Your task to perform on an android device: Check the news Image 0: 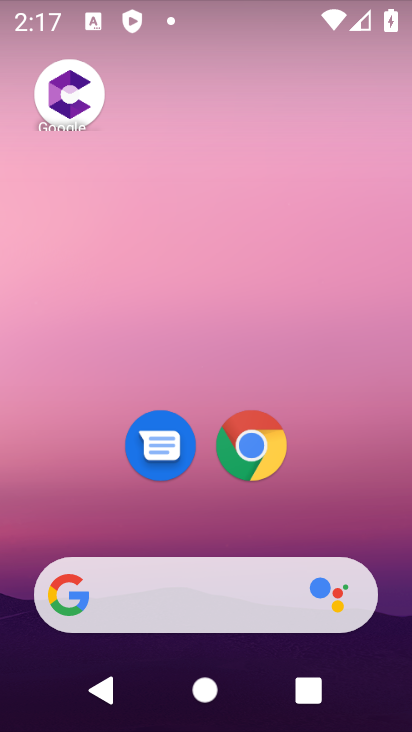
Step 0: click (223, 621)
Your task to perform on an android device: Check the news Image 1: 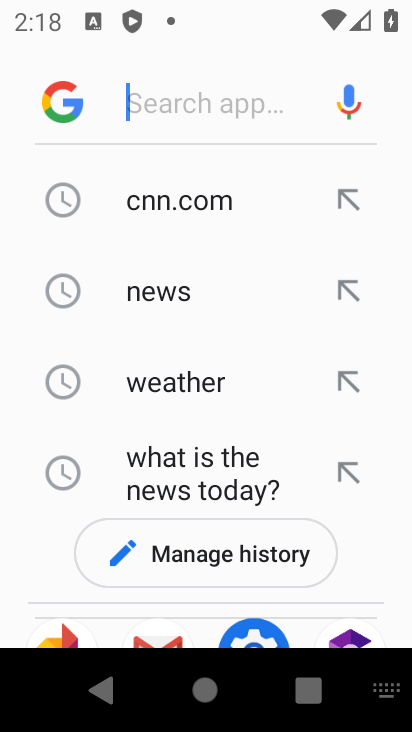
Step 1: click (149, 279)
Your task to perform on an android device: Check the news Image 2: 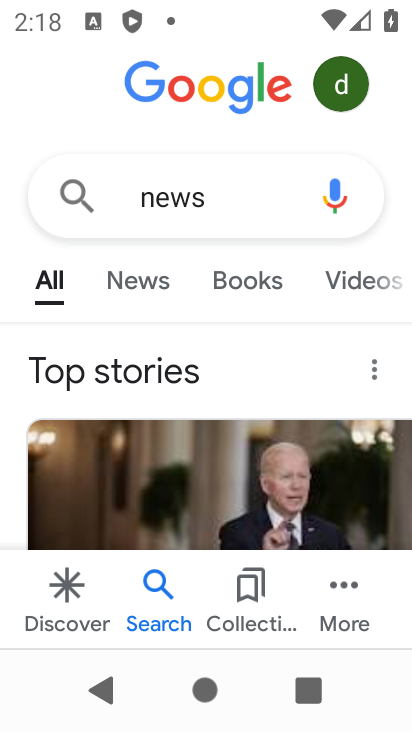
Step 2: task complete